Your task to perform on an android device: all mails in gmail Image 0: 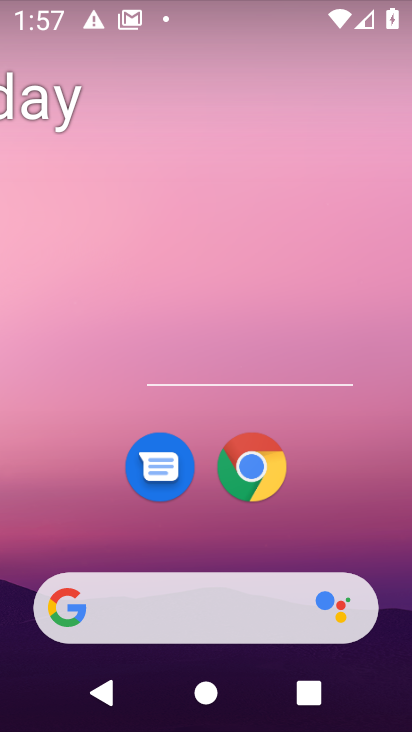
Step 0: drag from (212, 400) to (218, 136)
Your task to perform on an android device: all mails in gmail Image 1: 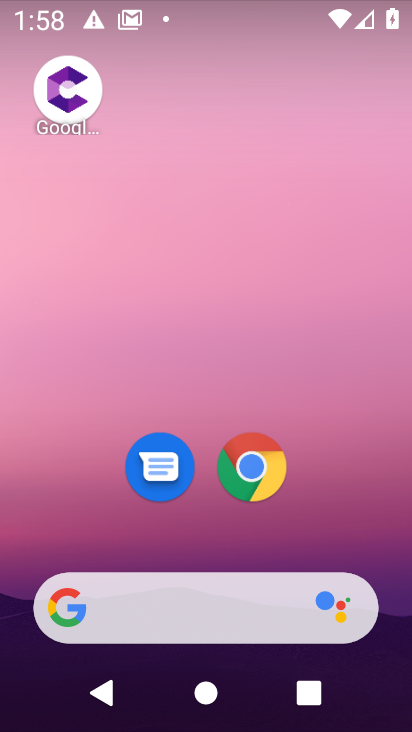
Step 1: task complete